Your task to perform on an android device: open app "Flipkart Online Shopping App" (install if not already installed) and enter user name: "fostered@gmail.com" and password: "negotiated" Image 0: 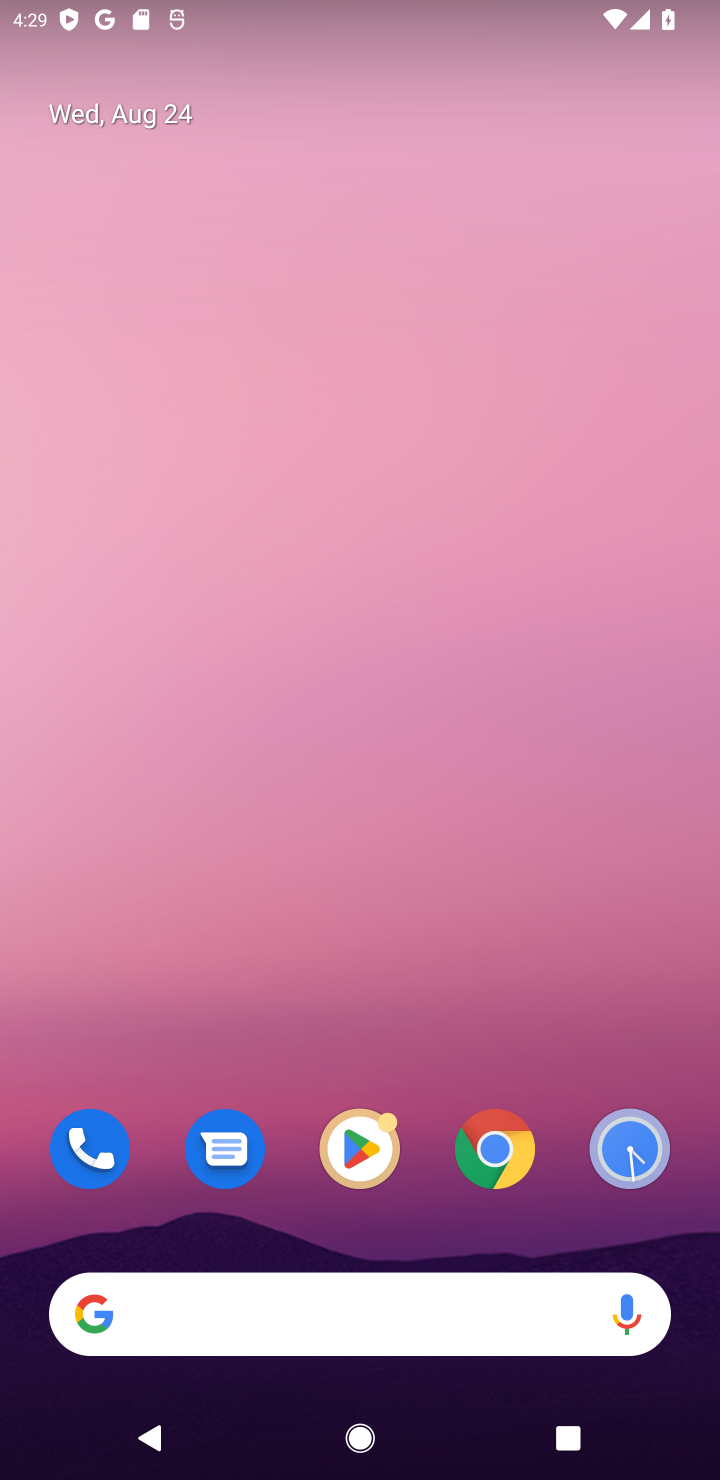
Step 0: click (349, 1148)
Your task to perform on an android device: open app "Flipkart Online Shopping App" (install if not already installed) and enter user name: "fostered@gmail.com" and password: "negotiated" Image 1: 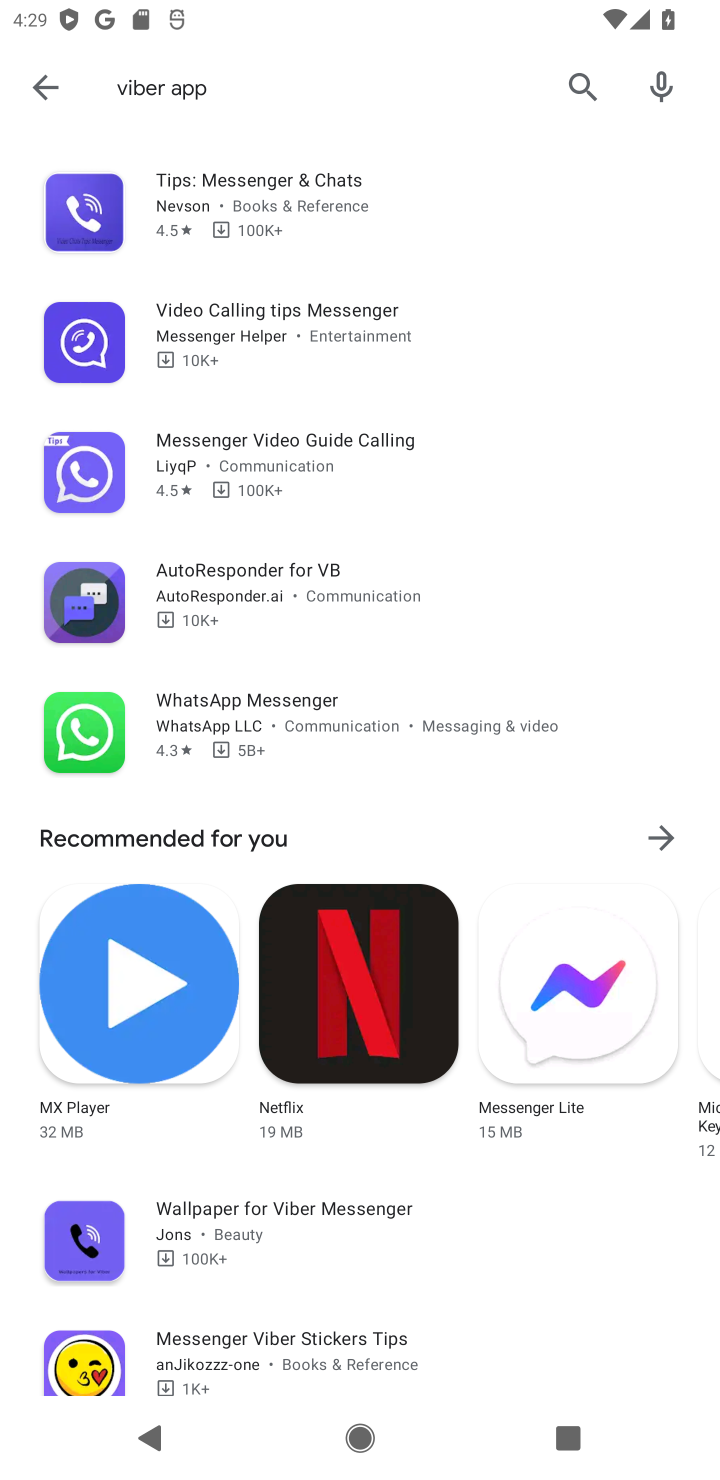
Step 1: click (584, 82)
Your task to perform on an android device: open app "Flipkart Online Shopping App" (install if not already installed) and enter user name: "fostered@gmail.com" and password: "negotiated" Image 2: 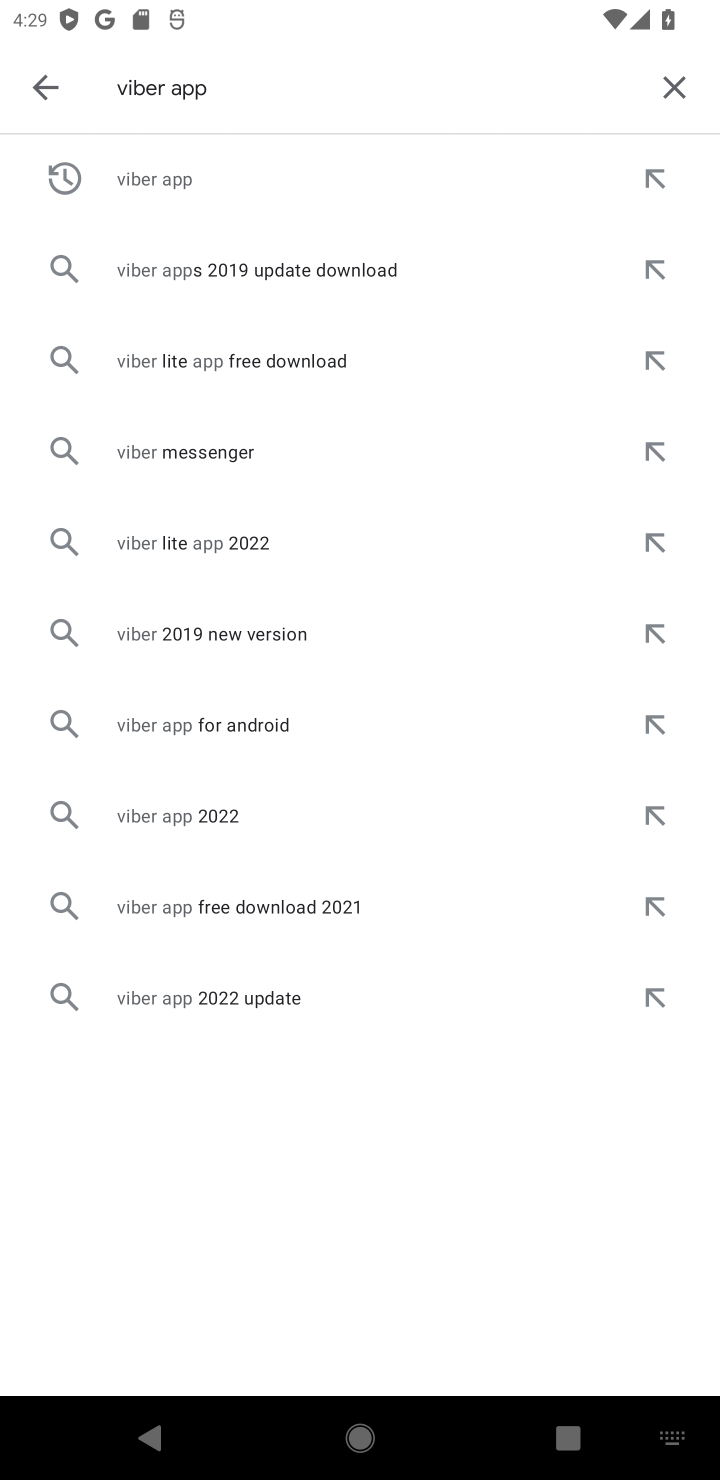
Step 2: click (672, 77)
Your task to perform on an android device: open app "Flipkart Online Shopping App" (install if not already installed) and enter user name: "fostered@gmail.com" and password: "negotiated" Image 3: 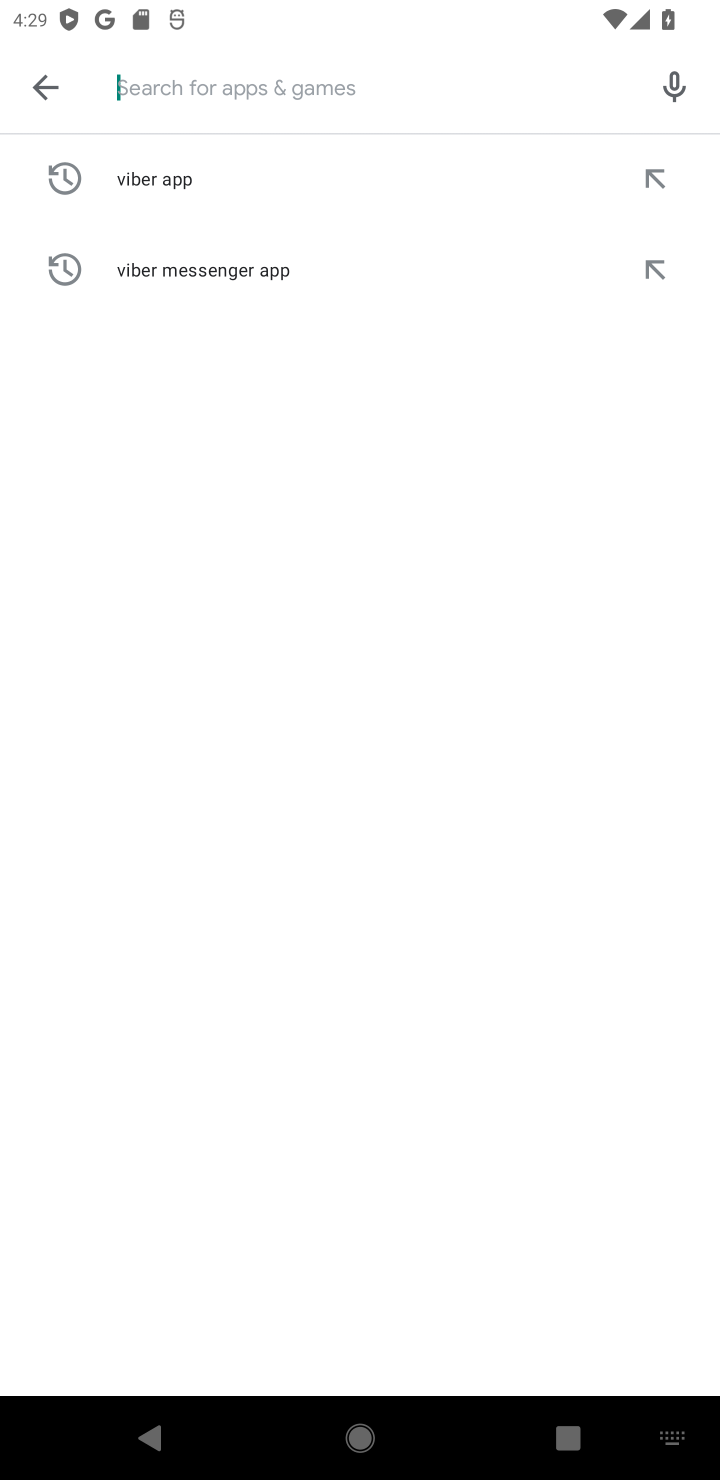
Step 3: type "Flipkart Online Shopping App"
Your task to perform on an android device: open app "Flipkart Online Shopping App" (install if not already installed) and enter user name: "fostered@gmail.com" and password: "negotiated" Image 4: 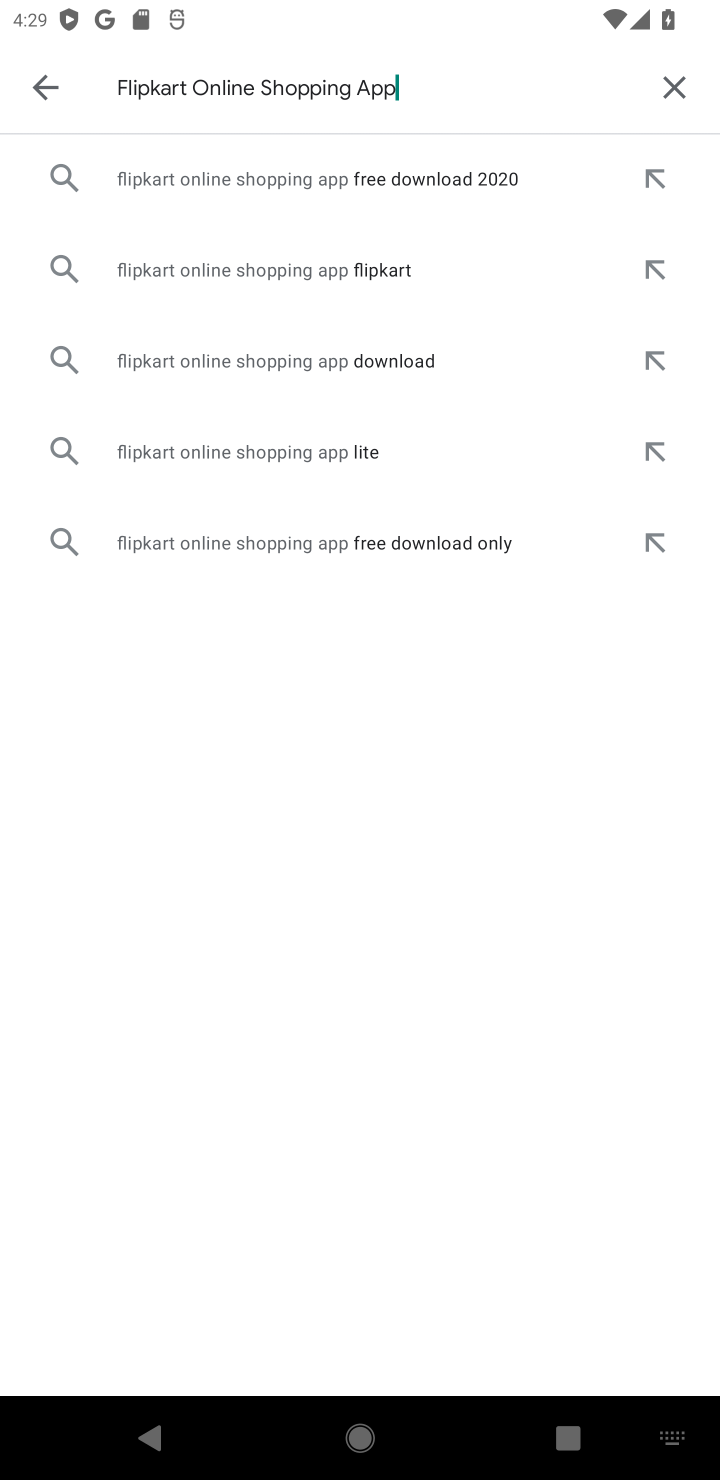
Step 4: click (303, 176)
Your task to perform on an android device: open app "Flipkart Online Shopping App" (install if not already installed) and enter user name: "fostered@gmail.com" and password: "negotiated" Image 5: 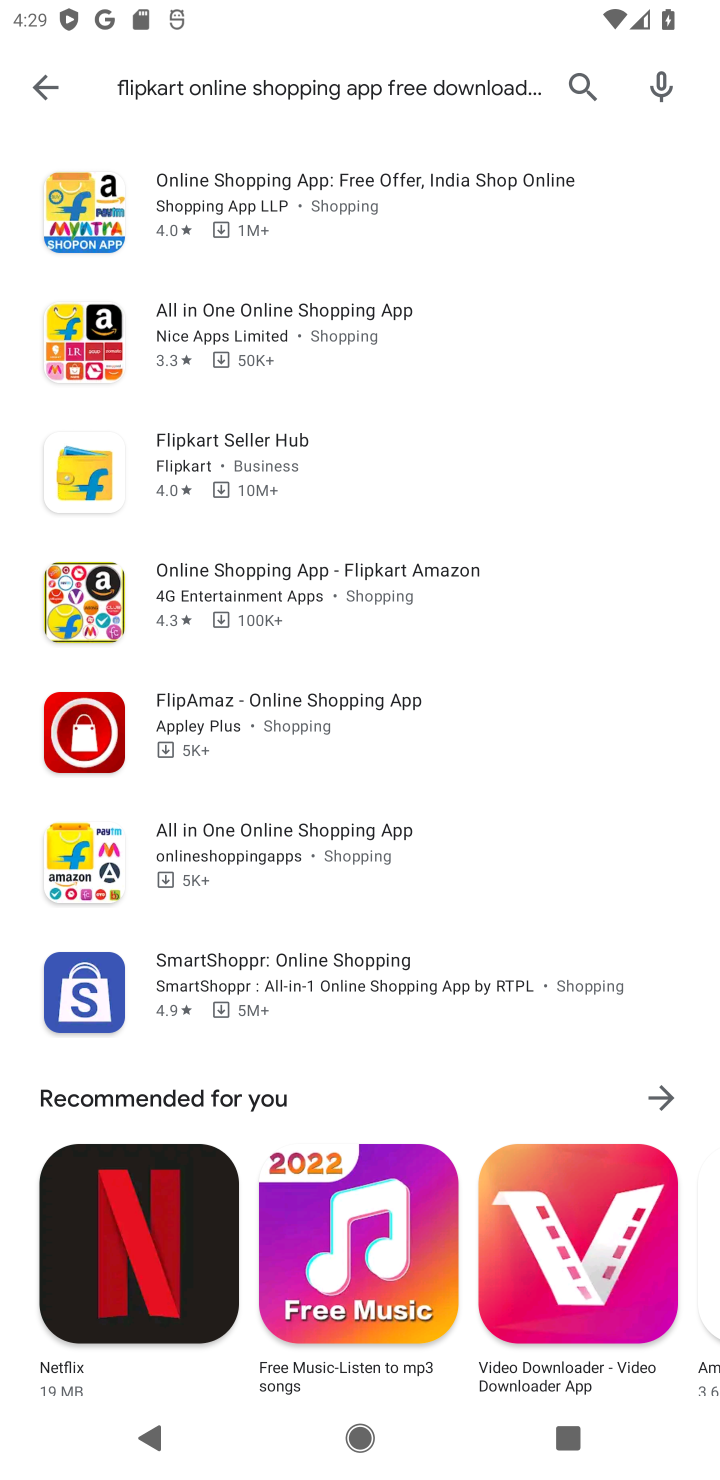
Step 5: click (574, 82)
Your task to perform on an android device: open app "Flipkart Online Shopping App" (install if not already installed) and enter user name: "fostered@gmail.com" and password: "negotiated" Image 6: 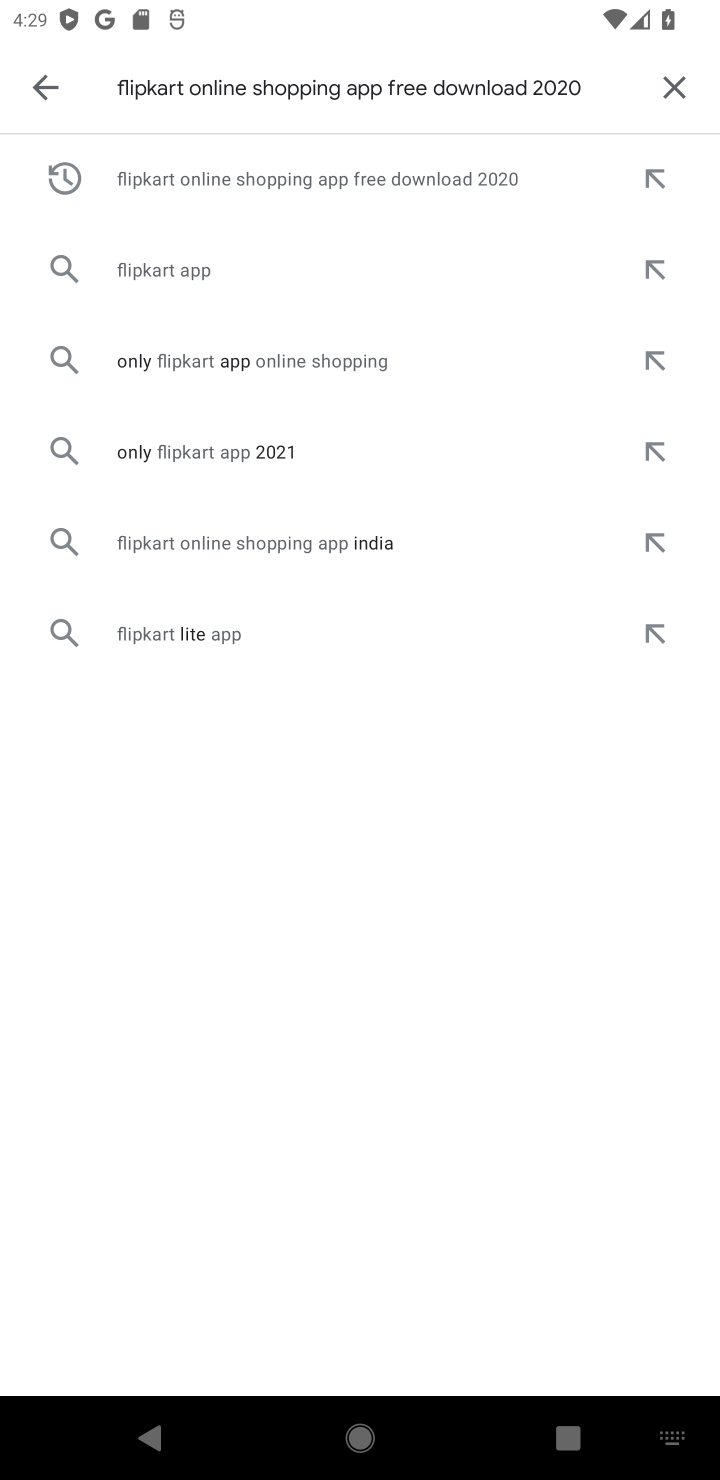
Step 6: click (663, 79)
Your task to perform on an android device: open app "Flipkart Online Shopping App" (install if not already installed) and enter user name: "fostered@gmail.com" and password: "negotiated" Image 7: 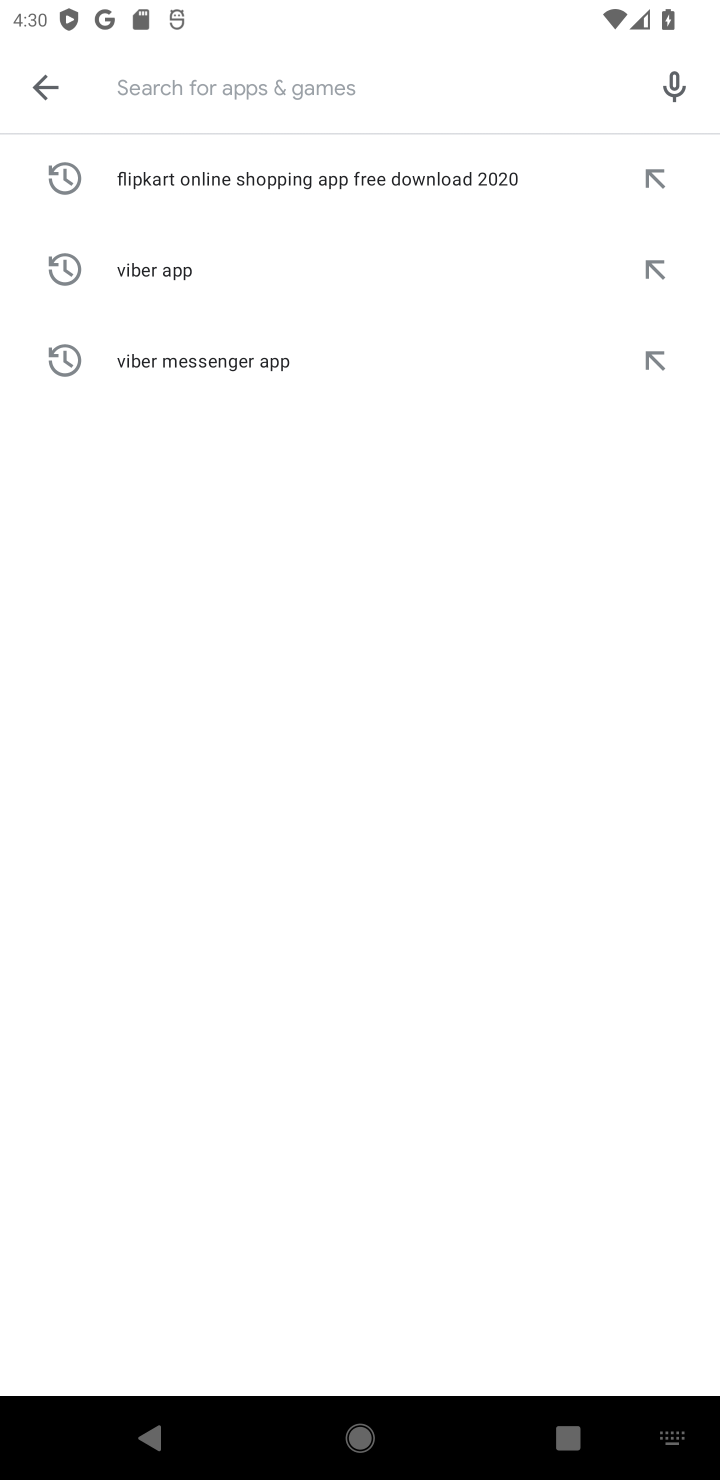
Step 7: type "Flipkart Online Shopping"
Your task to perform on an android device: open app "Flipkart Online Shopping App" (install if not already installed) and enter user name: "fostered@gmail.com" and password: "negotiated" Image 8: 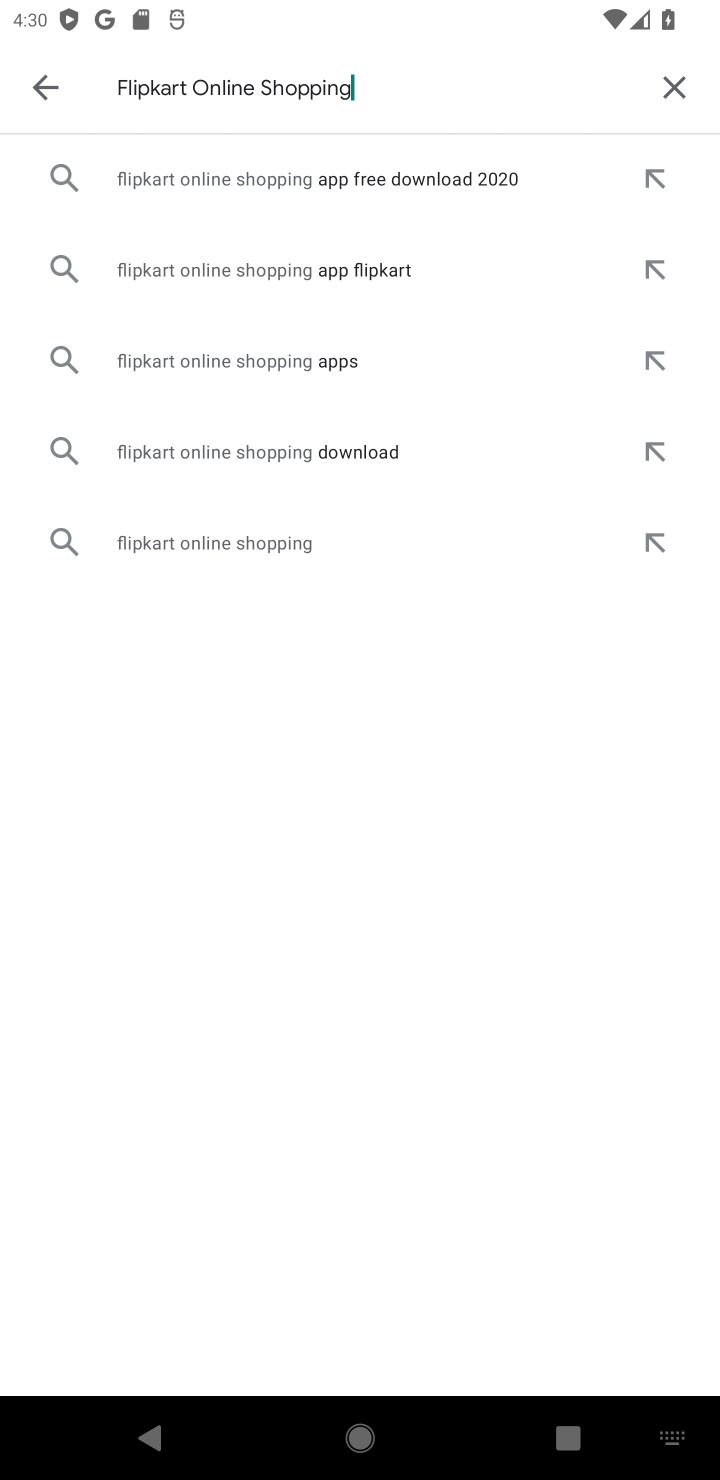
Step 8: click (195, 537)
Your task to perform on an android device: open app "Flipkart Online Shopping App" (install if not already installed) and enter user name: "fostered@gmail.com" and password: "negotiated" Image 9: 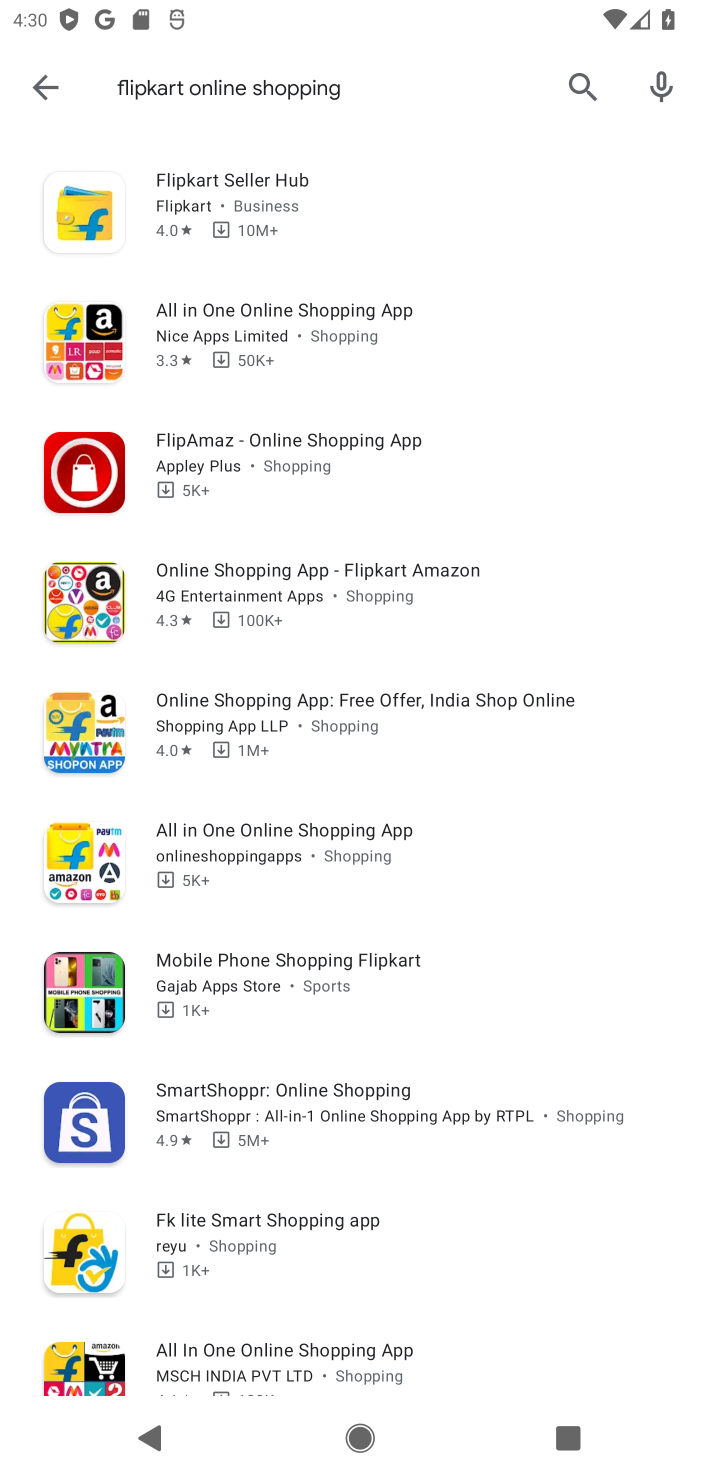
Step 9: task complete